Your task to perform on an android device: change the clock display to digital Image 0: 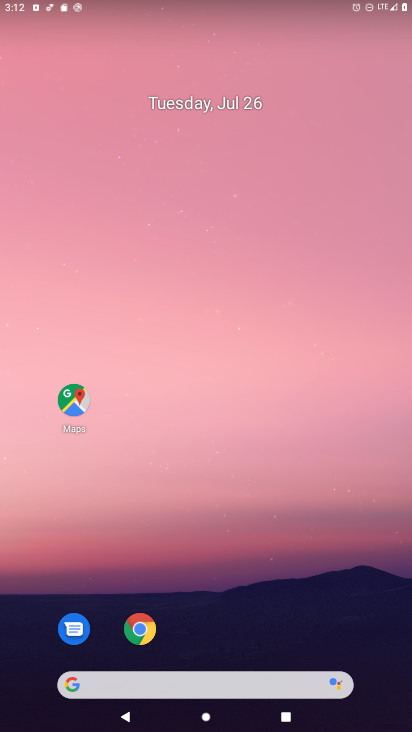
Step 0: drag from (391, 688) to (377, 153)
Your task to perform on an android device: change the clock display to digital Image 1: 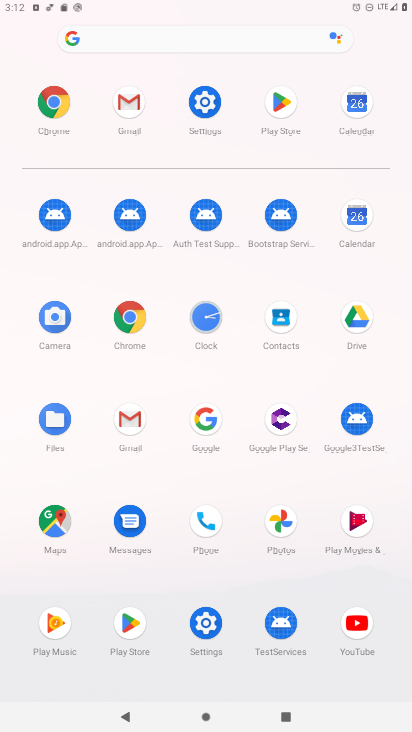
Step 1: click (202, 317)
Your task to perform on an android device: change the clock display to digital Image 2: 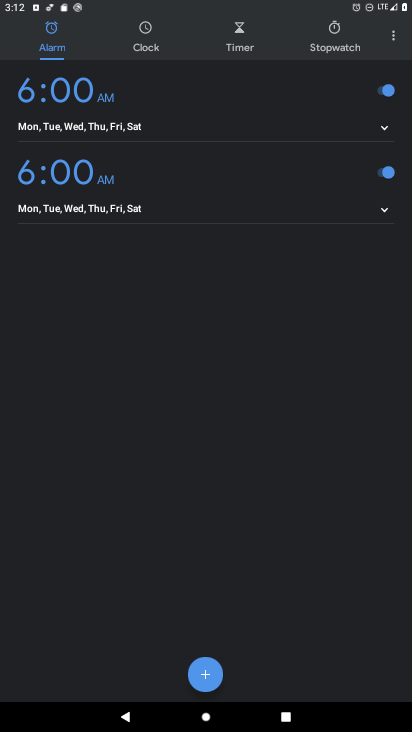
Step 2: click (393, 42)
Your task to perform on an android device: change the clock display to digital Image 3: 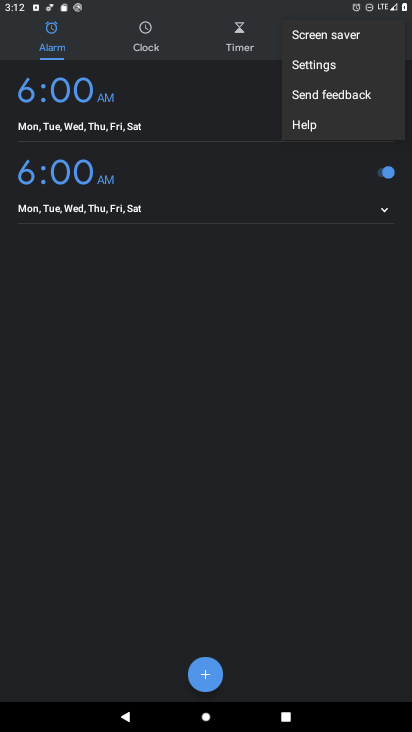
Step 3: click (311, 61)
Your task to perform on an android device: change the clock display to digital Image 4: 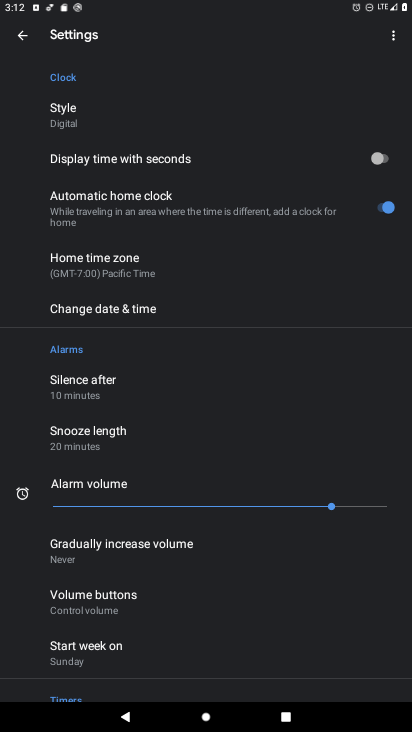
Step 4: task complete